Your task to perform on an android device: Is it going to rain this weekend? Image 0: 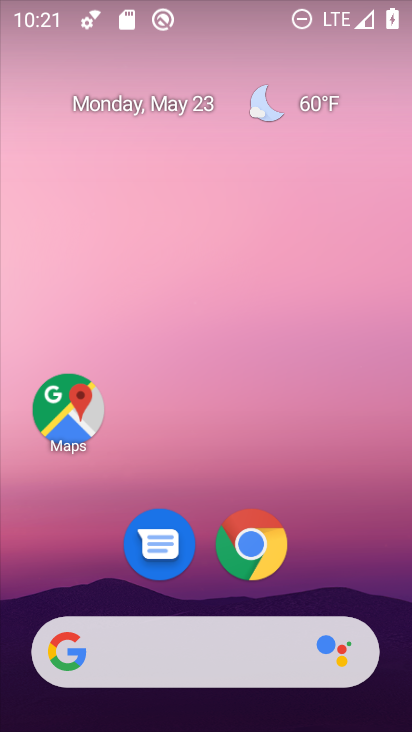
Step 0: click (250, 545)
Your task to perform on an android device: Is it going to rain this weekend? Image 1: 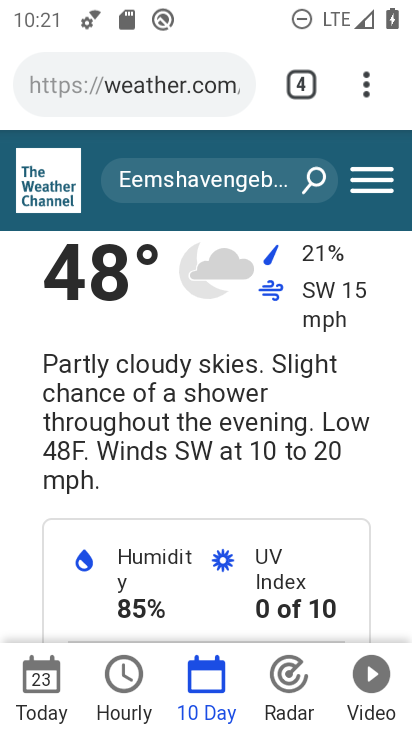
Step 1: drag from (337, 415) to (312, 251)
Your task to perform on an android device: Is it going to rain this weekend? Image 2: 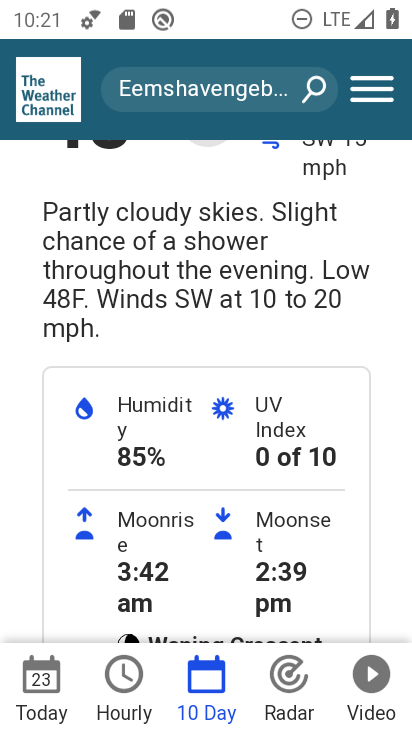
Step 2: drag from (294, 561) to (279, 223)
Your task to perform on an android device: Is it going to rain this weekend? Image 3: 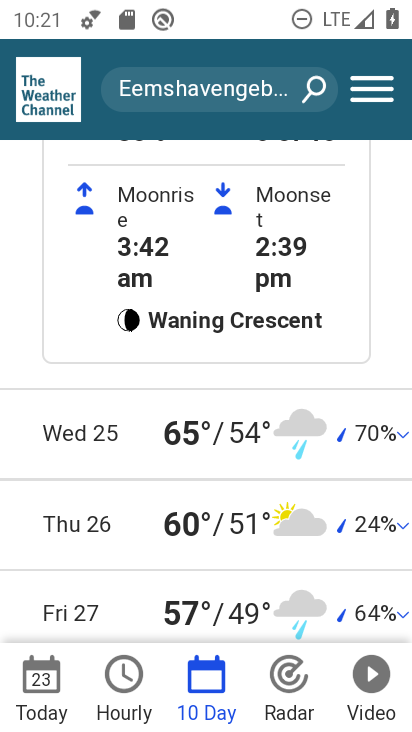
Step 3: drag from (181, 604) to (197, 345)
Your task to perform on an android device: Is it going to rain this weekend? Image 4: 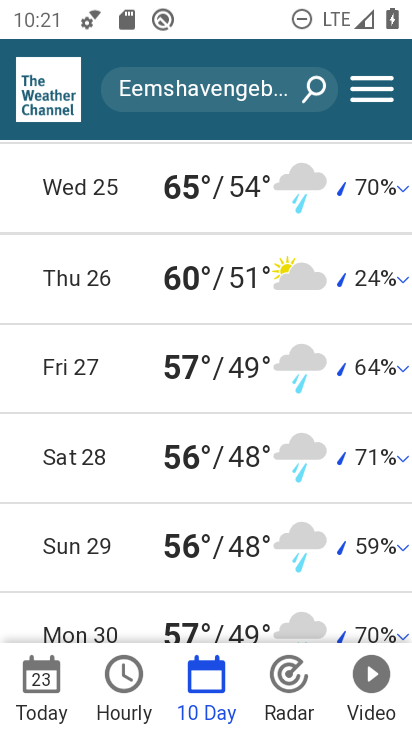
Step 4: click (395, 456)
Your task to perform on an android device: Is it going to rain this weekend? Image 5: 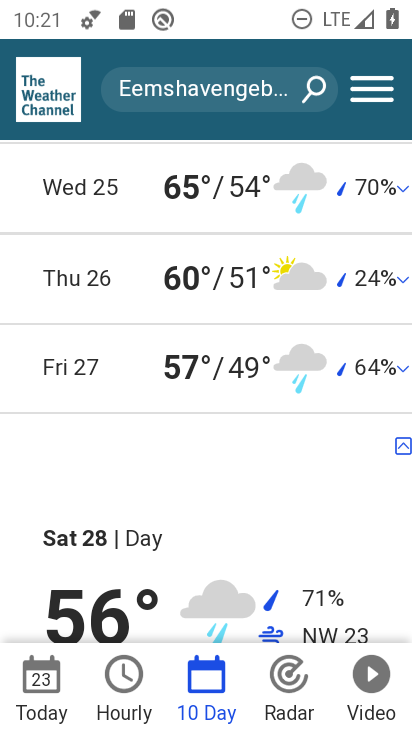
Step 5: drag from (201, 611) to (220, 348)
Your task to perform on an android device: Is it going to rain this weekend? Image 6: 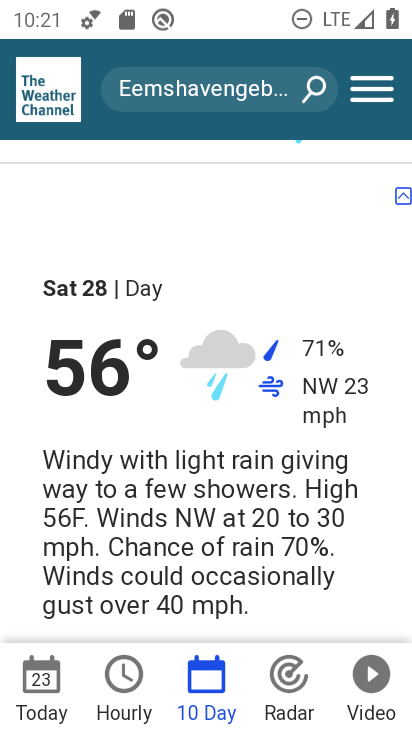
Step 6: drag from (239, 605) to (166, 220)
Your task to perform on an android device: Is it going to rain this weekend? Image 7: 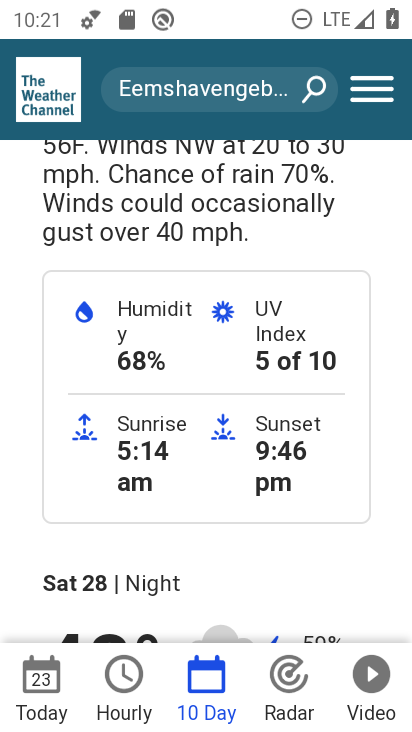
Step 7: drag from (203, 564) to (139, 304)
Your task to perform on an android device: Is it going to rain this weekend? Image 8: 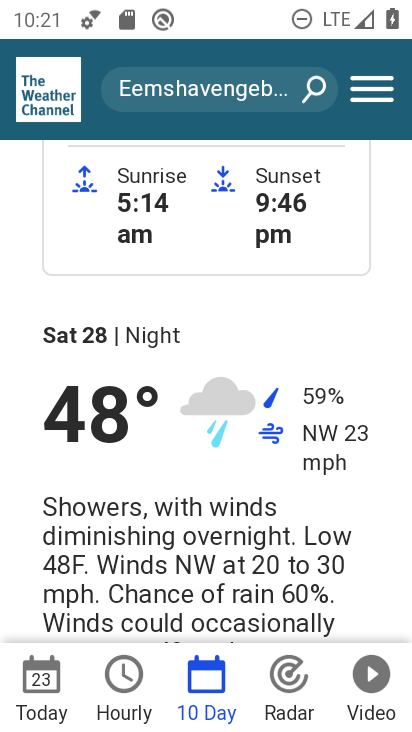
Step 8: drag from (247, 573) to (223, 258)
Your task to perform on an android device: Is it going to rain this weekend? Image 9: 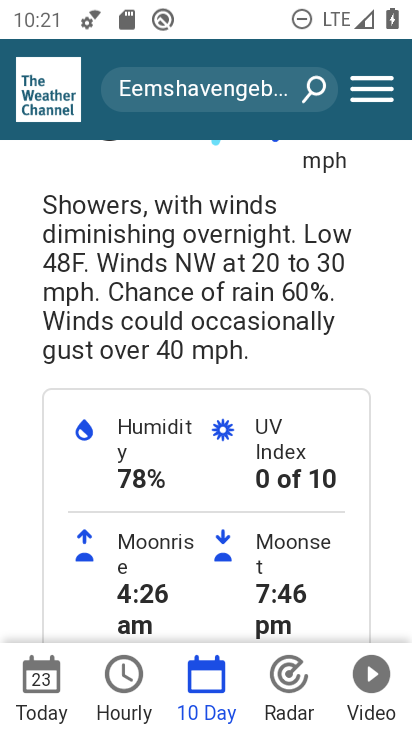
Step 9: drag from (219, 584) to (184, 321)
Your task to perform on an android device: Is it going to rain this weekend? Image 10: 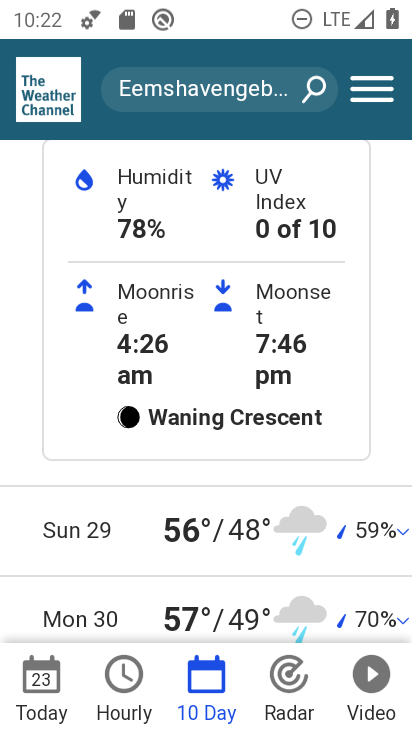
Step 10: click (365, 530)
Your task to perform on an android device: Is it going to rain this weekend? Image 11: 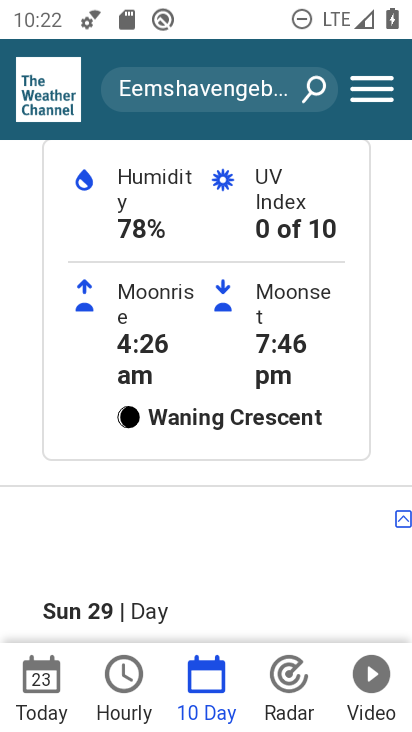
Step 11: task complete